Your task to perform on an android device: Check the news Image 0: 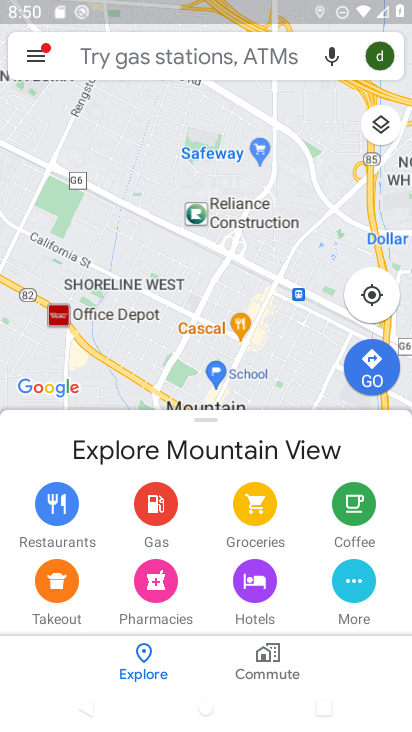
Step 0: press home button
Your task to perform on an android device: Check the news Image 1: 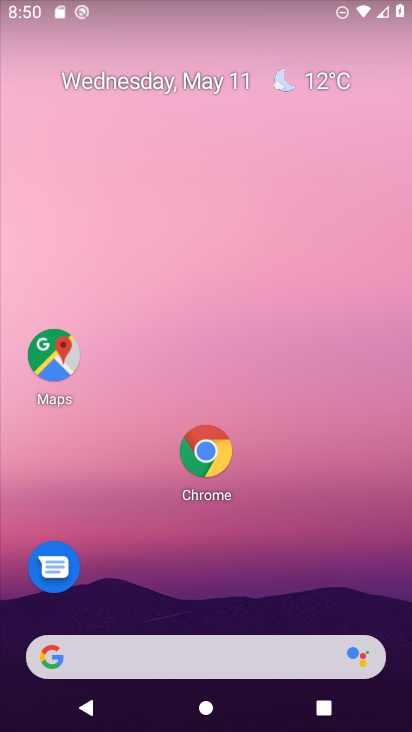
Step 1: click (57, 661)
Your task to perform on an android device: Check the news Image 2: 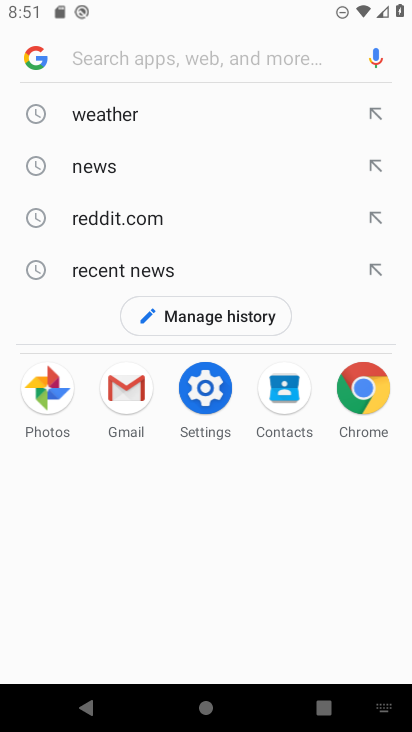
Step 2: click (107, 165)
Your task to perform on an android device: Check the news Image 3: 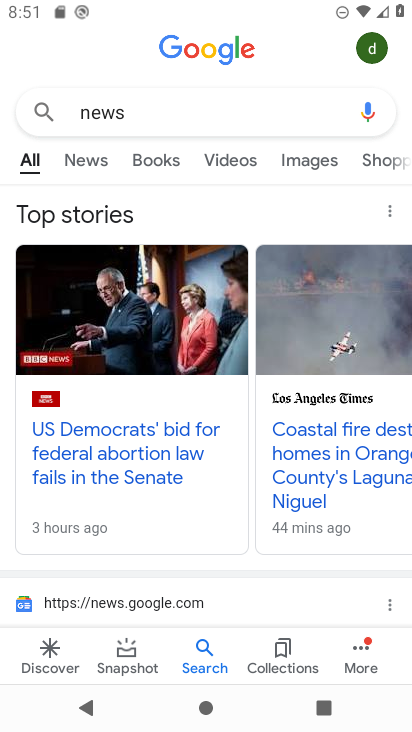
Step 3: click (75, 167)
Your task to perform on an android device: Check the news Image 4: 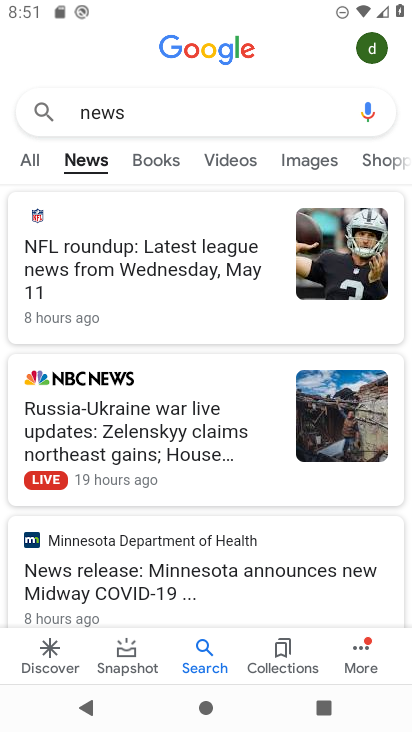
Step 4: task complete